Your task to perform on an android device: Search for flights from NYC to Chicago Image 0: 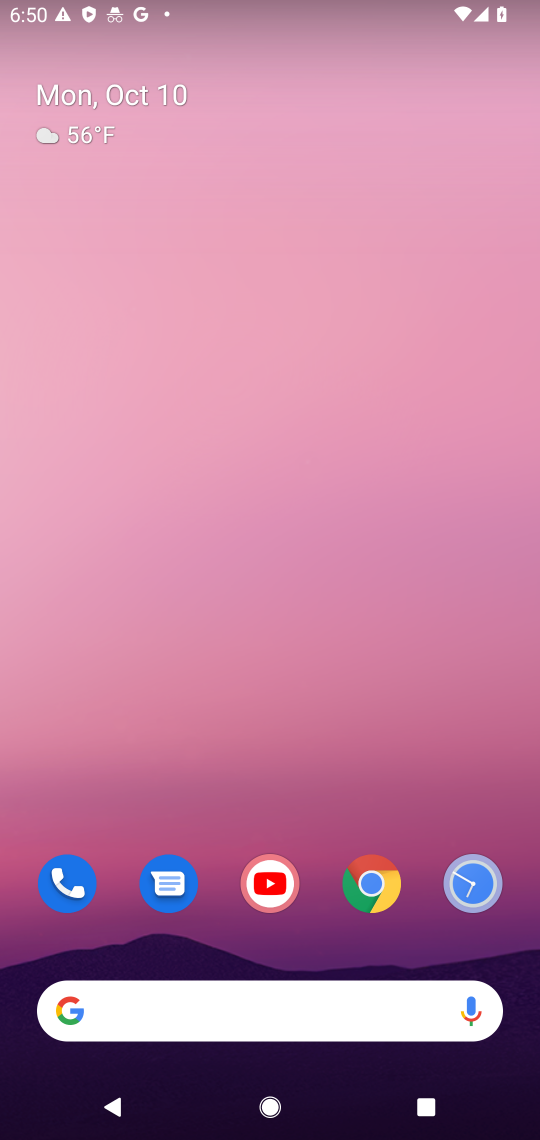
Step 0: drag from (225, 986) to (189, 292)
Your task to perform on an android device: Search for flights from NYC to Chicago Image 1: 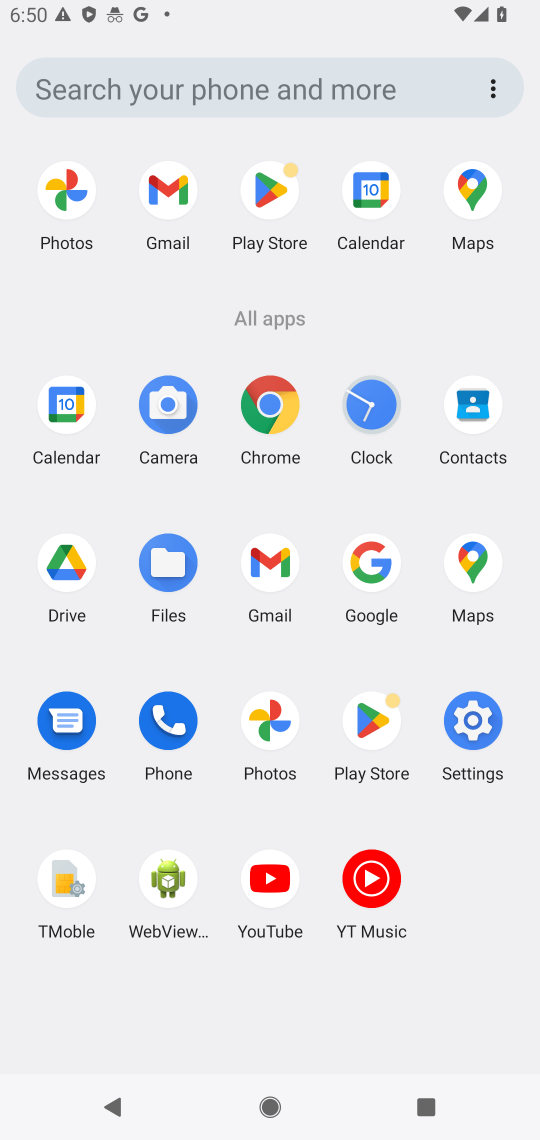
Step 1: click (371, 569)
Your task to perform on an android device: Search for flights from NYC to Chicago Image 2: 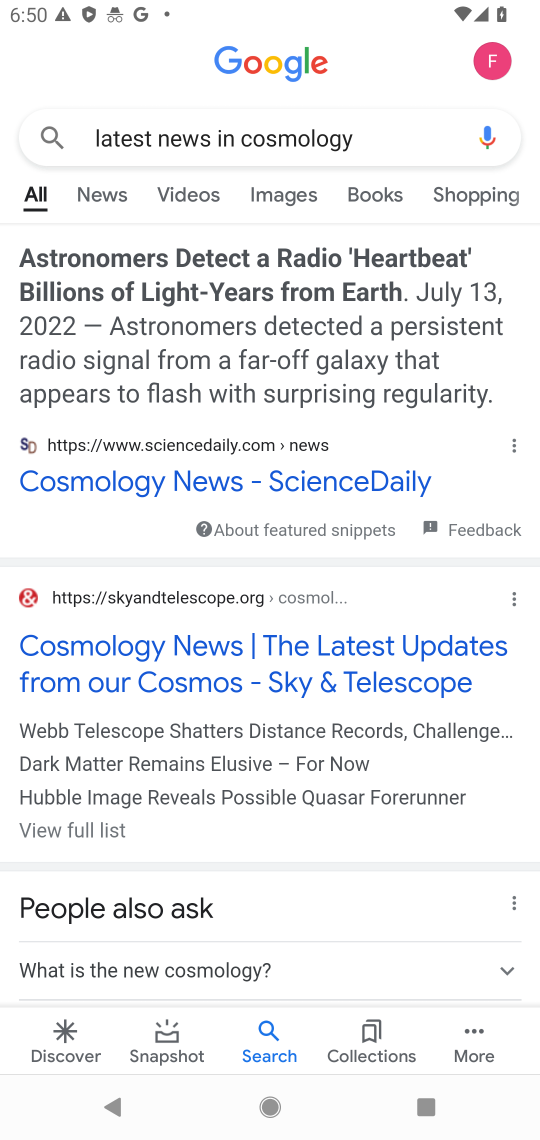
Step 2: click (419, 124)
Your task to perform on an android device: Search for flights from NYC to Chicago Image 3: 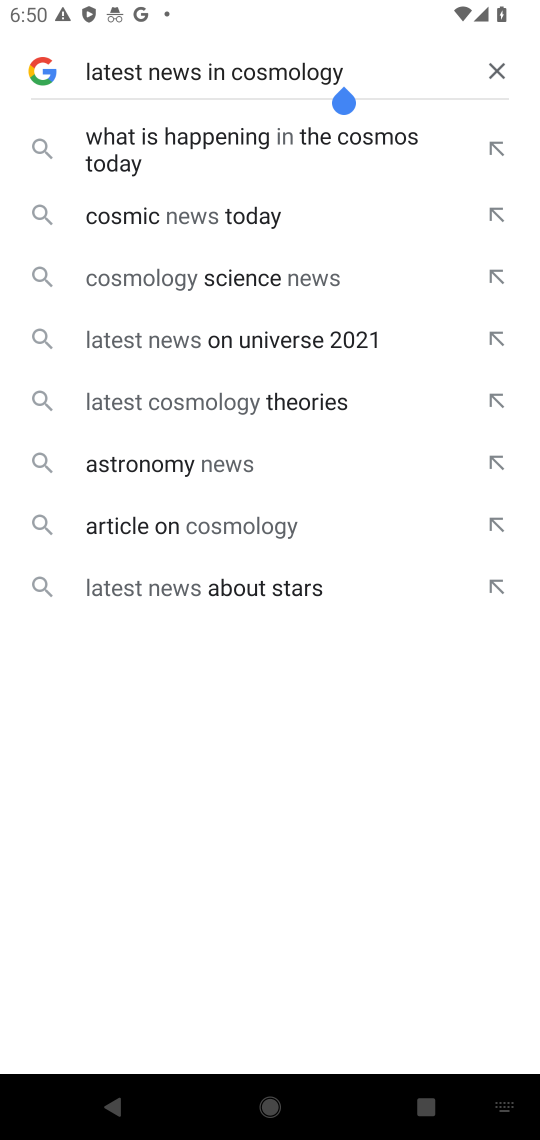
Step 3: click (496, 82)
Your task to perform on an android device: Search for flights from NYC to Chicago Image 4: 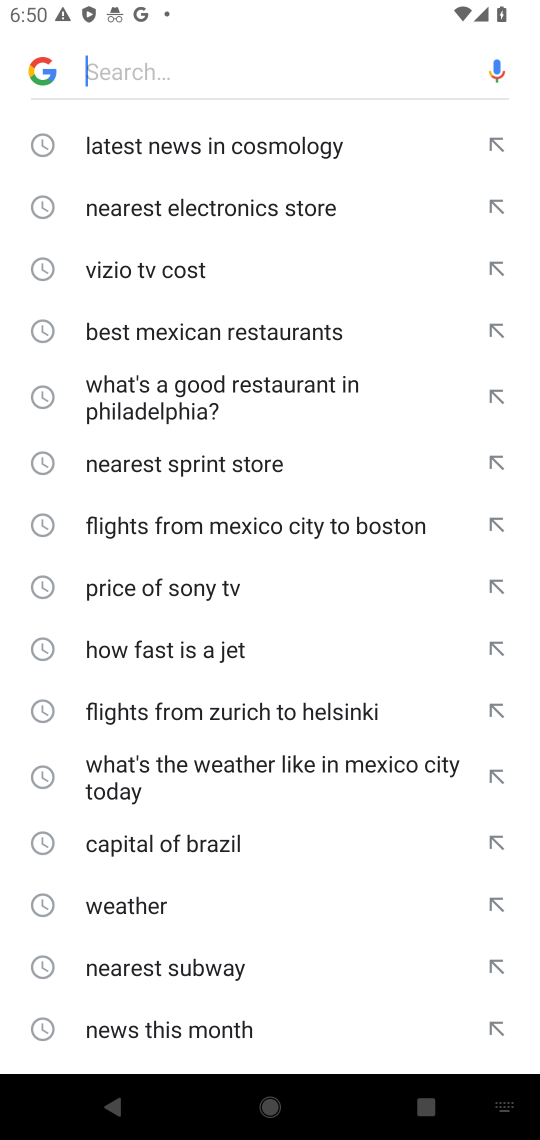
Step 4: type "flights from NYC to Chicago"
Your task to perform on an android device: Search for flights from NYC to Chicago Image 5: 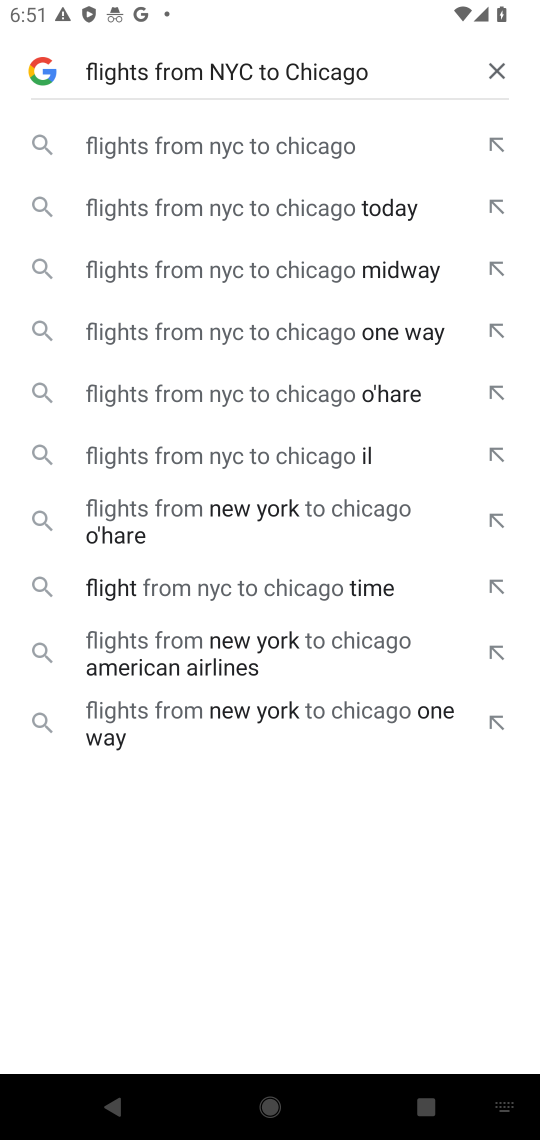
Step 5: click (354, 138)
Your task to perform on an android device: Search for flights from NYC to Chicago Image 6: 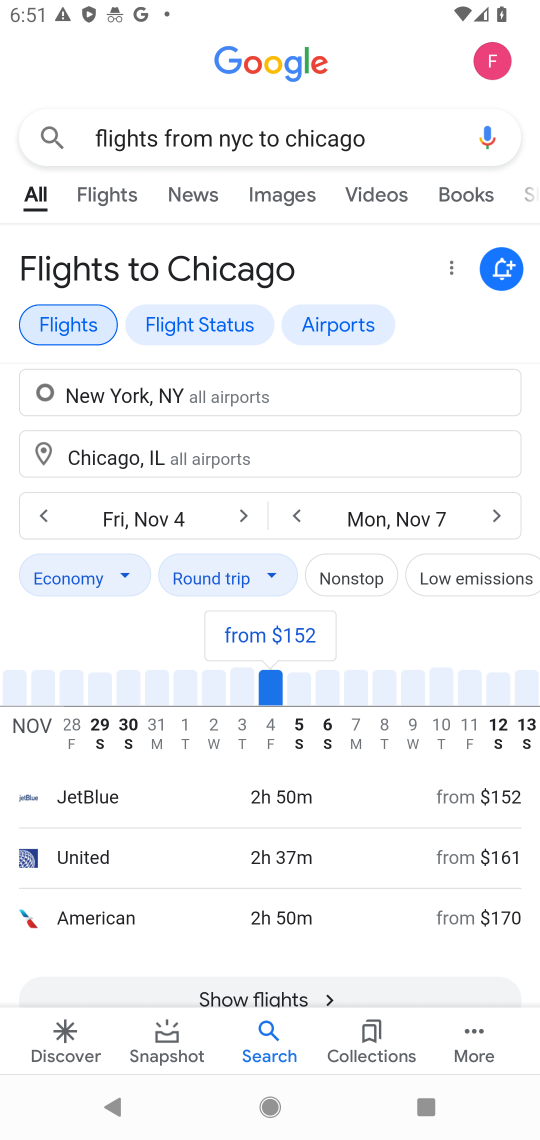
Step 6: click (111, 180)
Your task to perform on an android device: Search for flights from NYC to Chicago Image 7: 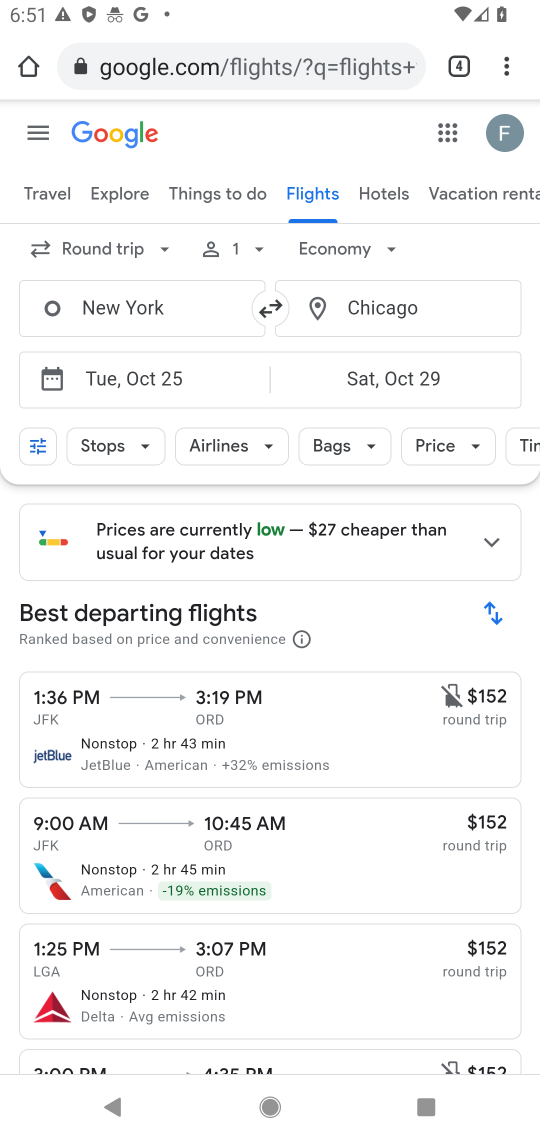
Step 7: task complete